Your task to perform on an android device: Show me recent news Image 0: 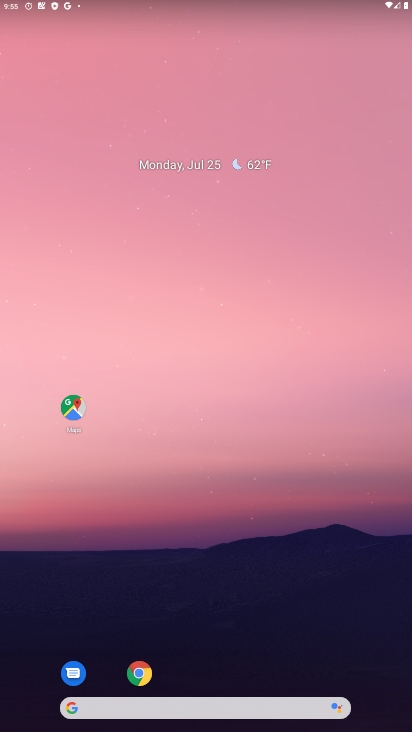
Step 0: drag from (190, 634) to (238, 13)
Your task to perform on an android device: Show me recent news Image 1: 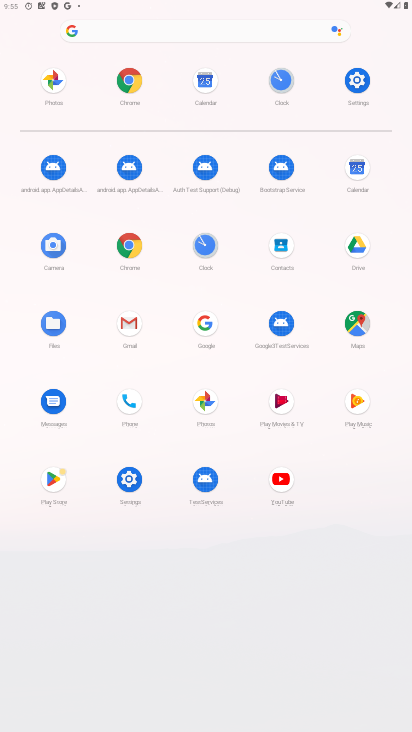
Step 1: click (138, 25)
Your task to perform on an android device: Show me recent news Image 2: 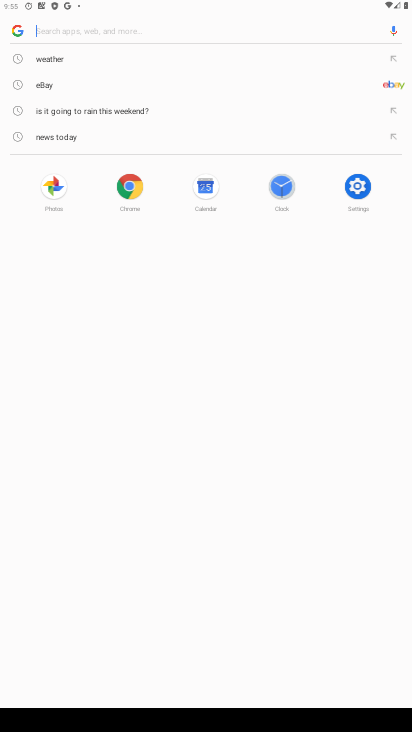
Step 2: type "recent news"
Your task to perform on an android device: Show me recent news Image 3: 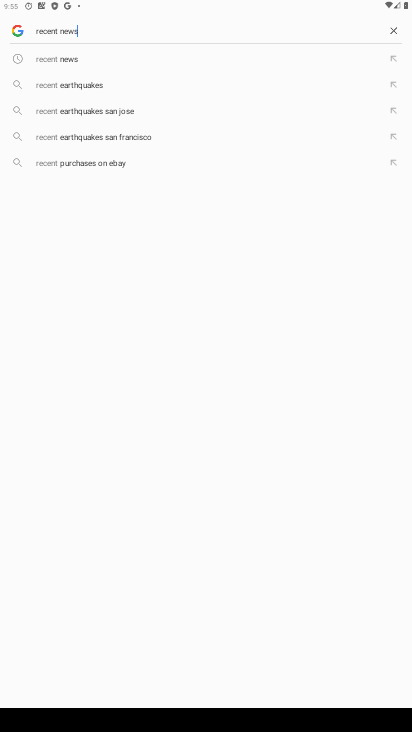
Step 3: type ""
Your task to perform on an android device: Show me recent news Image 4: 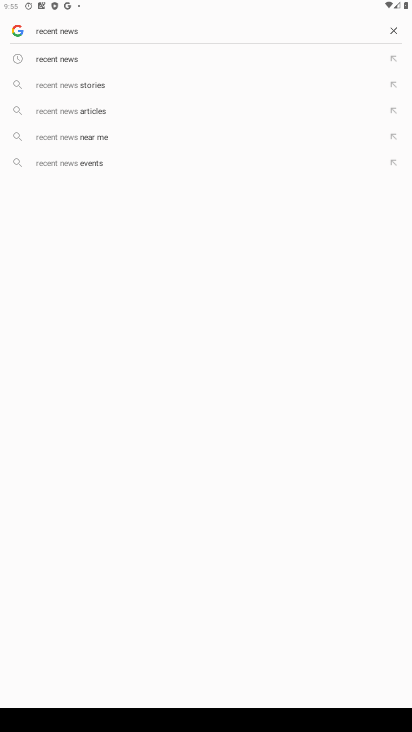
Step 4: click (80, 51)
Your task to perform on an android device: Show me recent news Image 5: 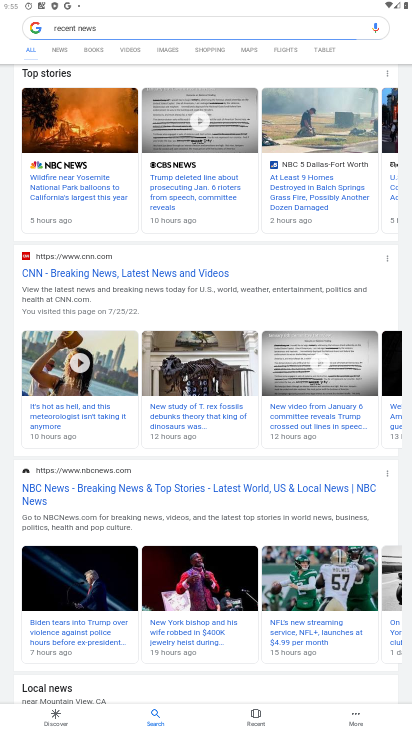
Step 5: task complete